Your task to perform on an android device: install app "PlayWell" Image 0: 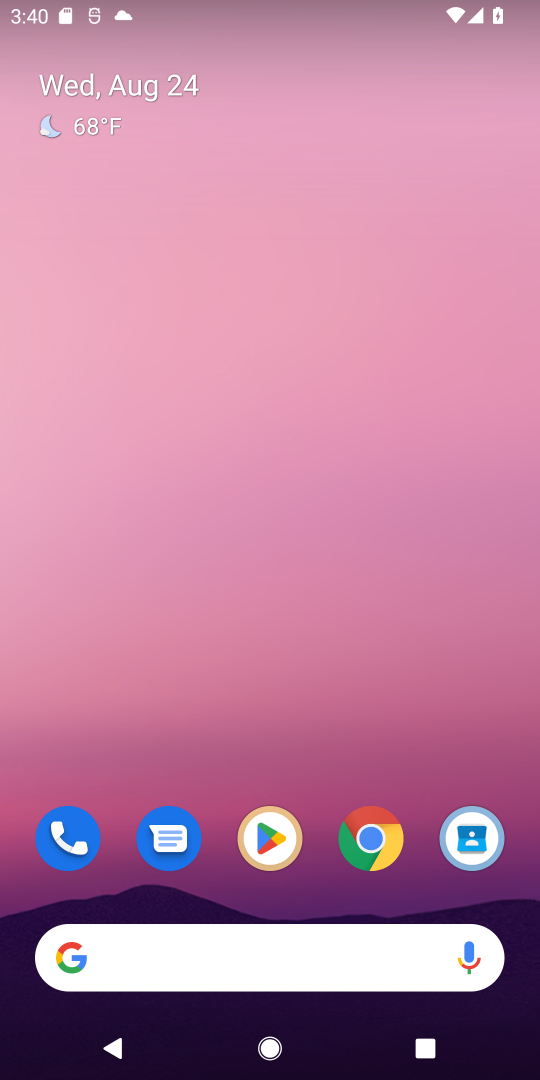
Step 0: click (287, 846)
Your task to perform on an android device: install app "PlayWell" Image 1: 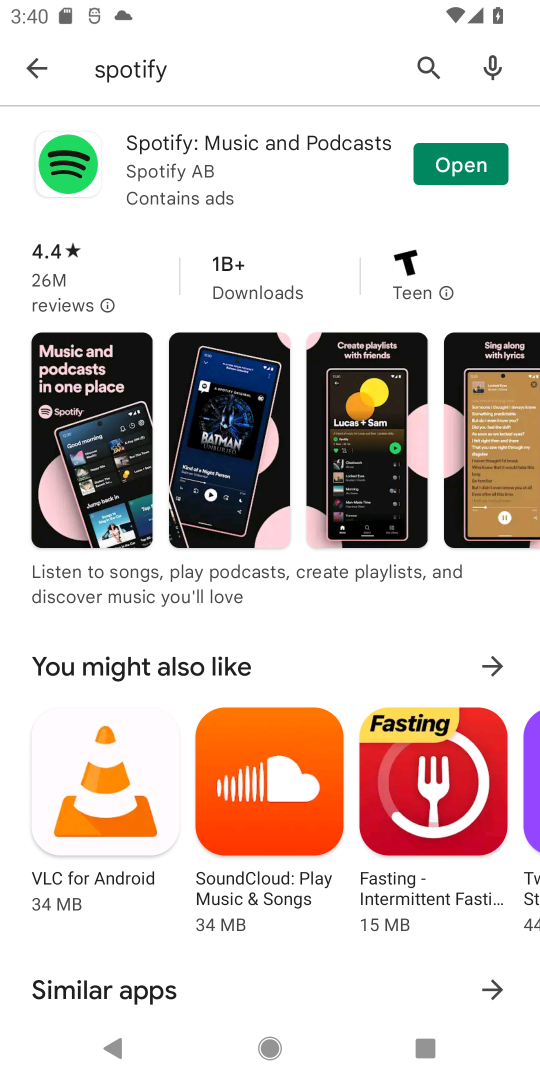
Step 1: click (47, 70)
Your task to perform on an android device: install app "PlayWell" Image 2: 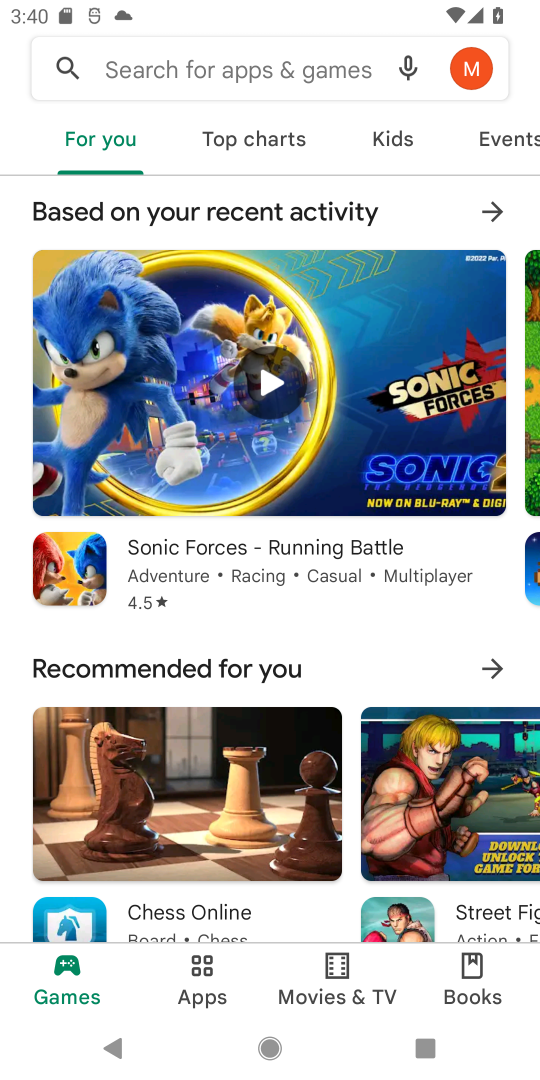
Step 2: click (137, 83)
Your task to perform on an android device: install app "PlayWell" Image 3: 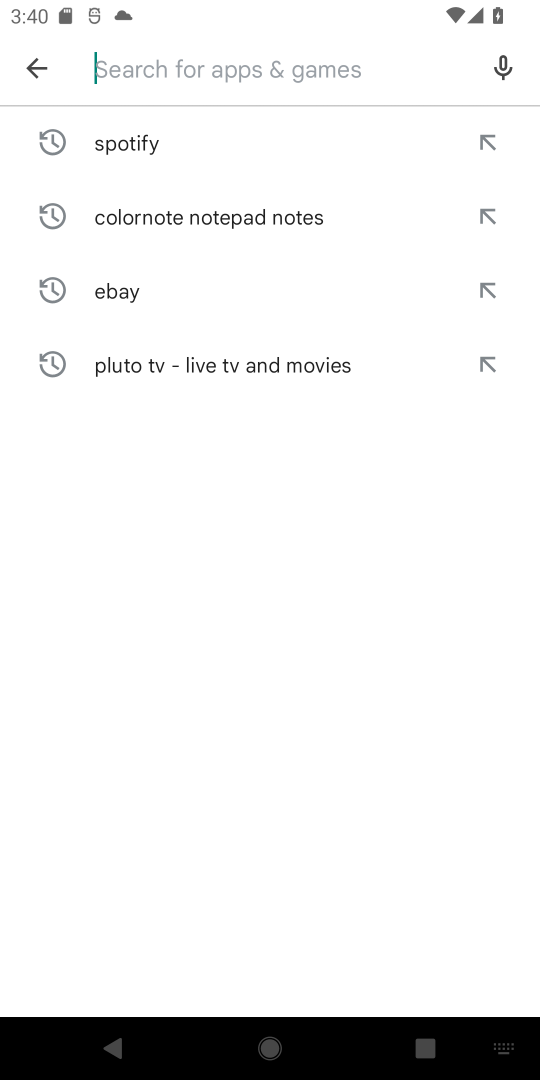
Step 3: type "PlayWell"
Your task to perform on an android device: install app "PlayWell" Image 4: 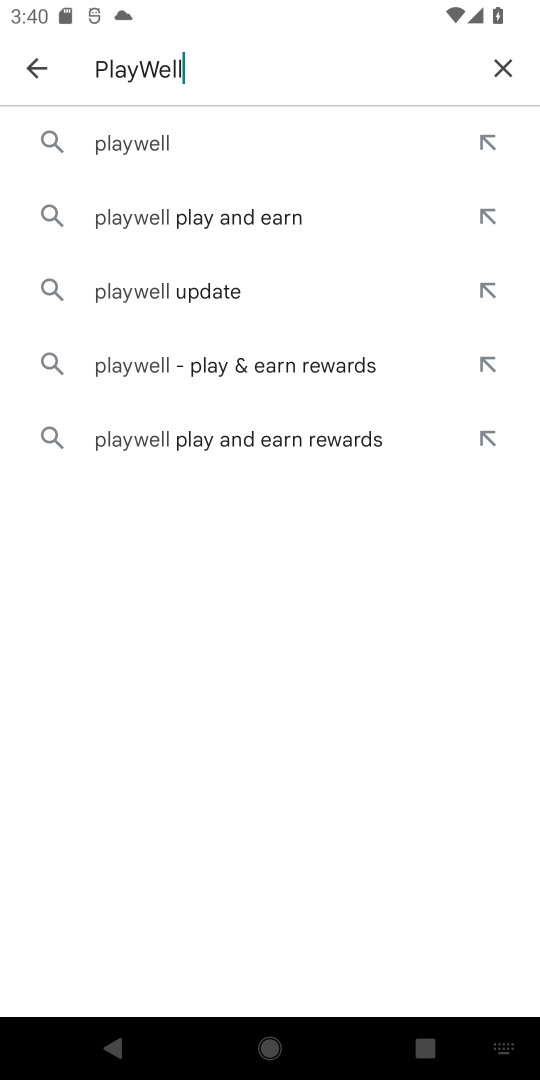
Step 4: click (144, 133)
Your task to perform on an android device: install app "PlayWell" Image 5: 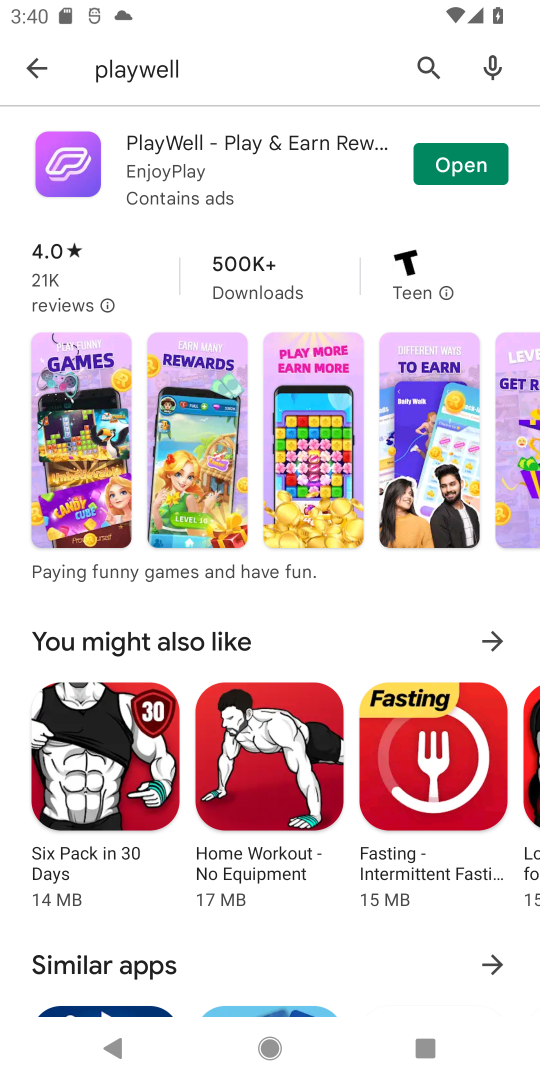
Step 5: task complete